Your task to perform on an android device: change notifications settings Image 0: 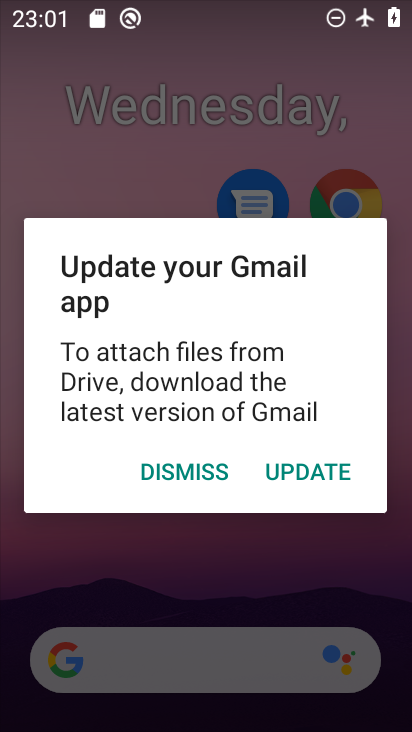
Step 0: click (151, 501)
Your task to perform on an android device: change notifications settings Image 1: 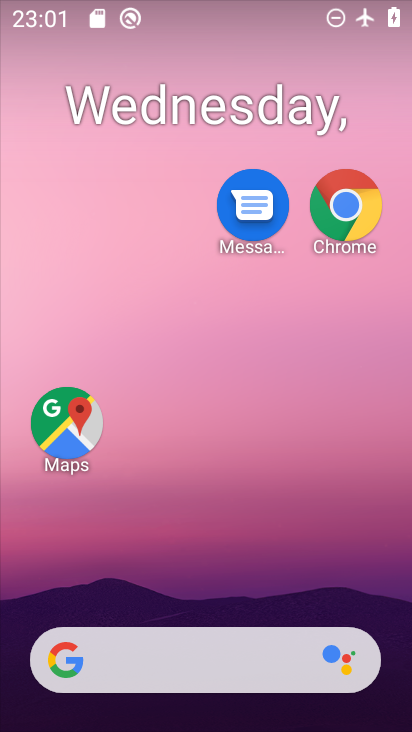
Step 1: drag from (250, 401) to (243, 82)
Your task to perform on an android device: change notifications settings Image 2: 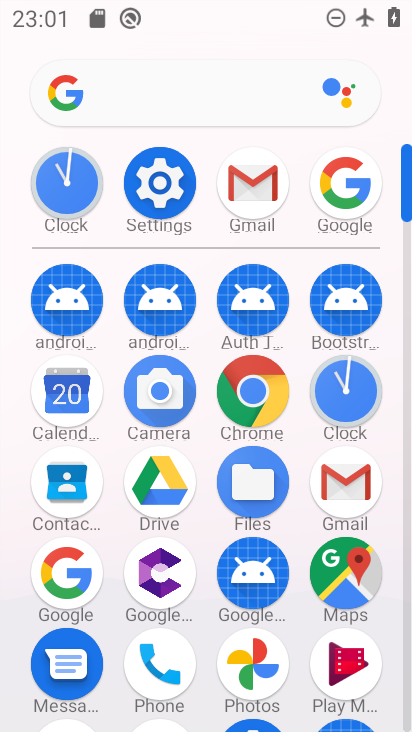
Step 2: click (167, 167)
Your task to perform on an android device: change notifications settings Image 3: 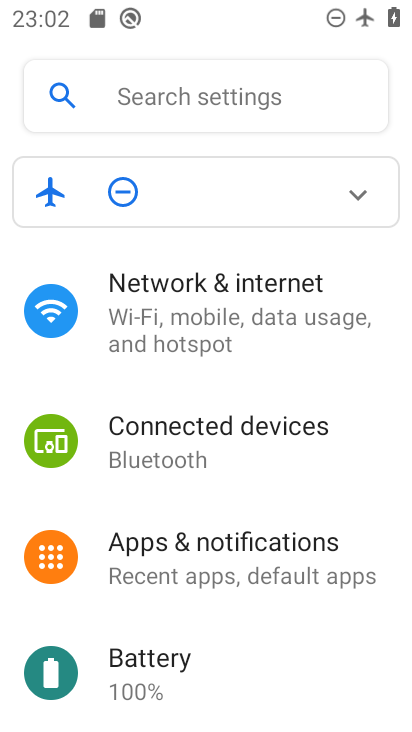
Step 3: drag from (207, 463) to (227, 127)
Your task to perform on an android device: change notifications settings Image 4: 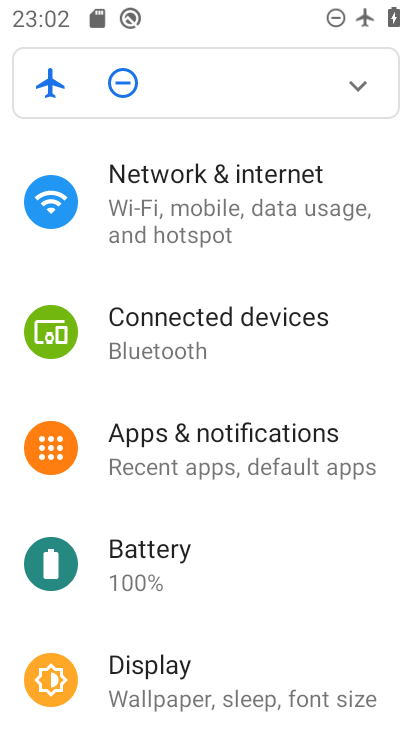
Step 4: click (190, 434)
Your task to perform on an android device: change notifications settings Image 5: 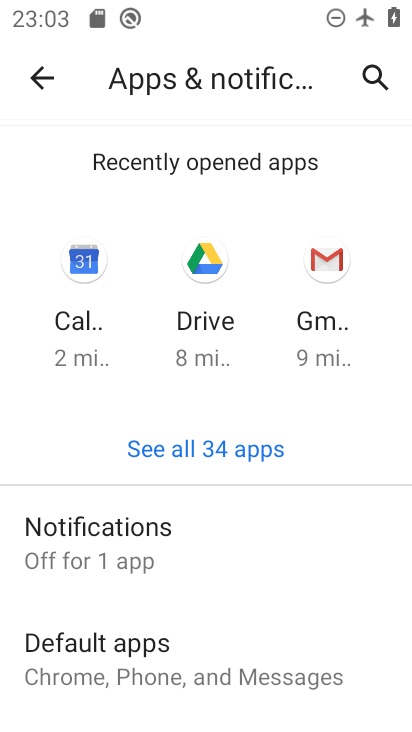
Step 5: drag from (224, 528) to (255, 172)
Your task to perform on an android device: change notifications settings Image 6: 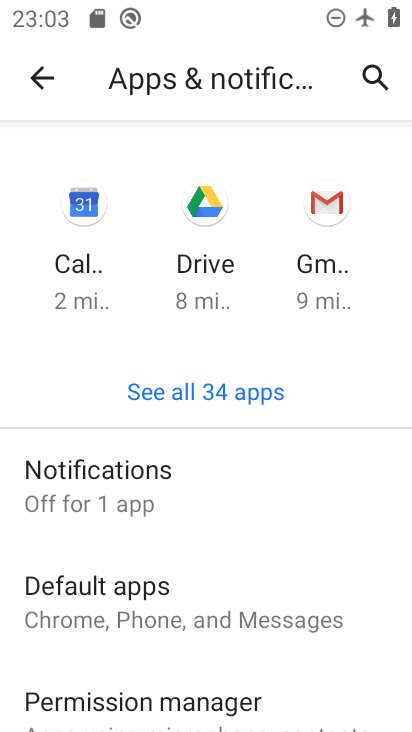
Step 6: drag from (200, 484) to (220, 58)
Your task to perform on an android device: change notifications settings Image 7: 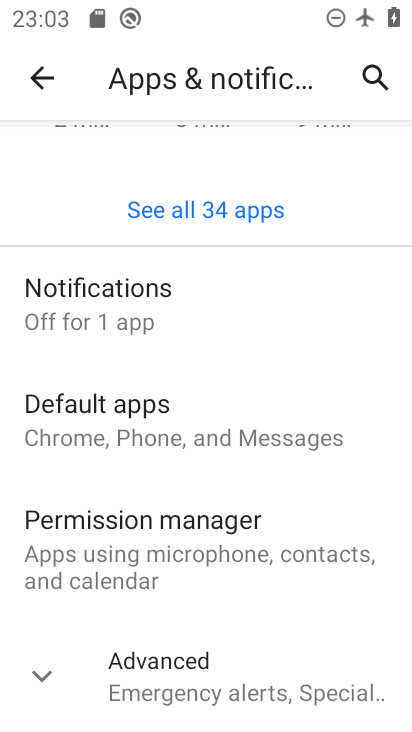
Step 7: drag from (176, 331) to (314, 726)
Your task to perform on an android device: change notifications settings Image 8: 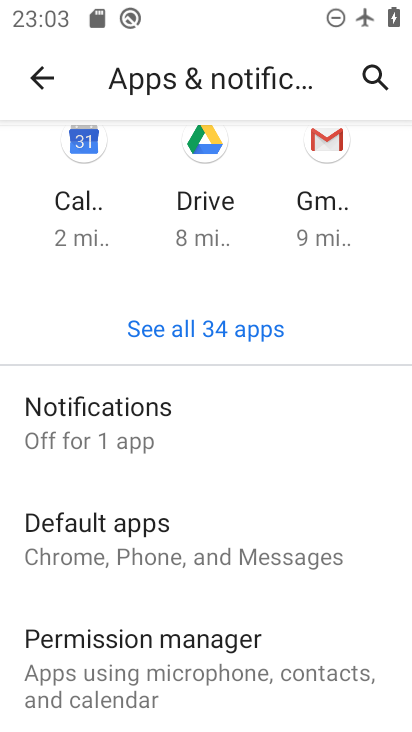
Step 8: drag from (122, 255) to (340, 622)
Your task to perform on an android device: change notifications settings Image 9: 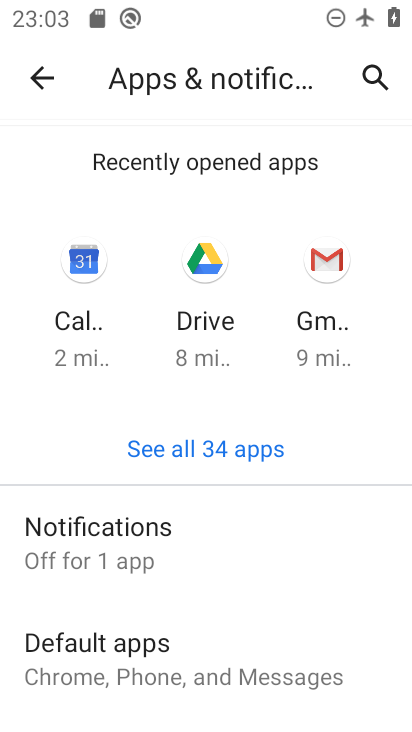
Step 9: click (196, 530)
Your task to perform on an android device: change notifications settings Image 10: 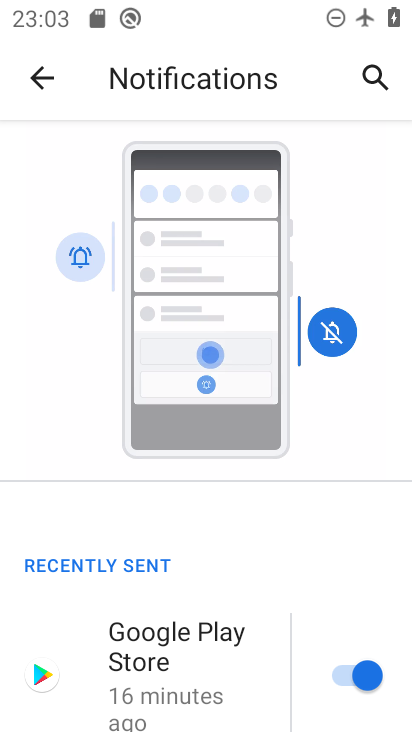
Step 10: drag from (209, 636) to (266, 172)
Your task to perform on an android device: change notifications settings Image 11: 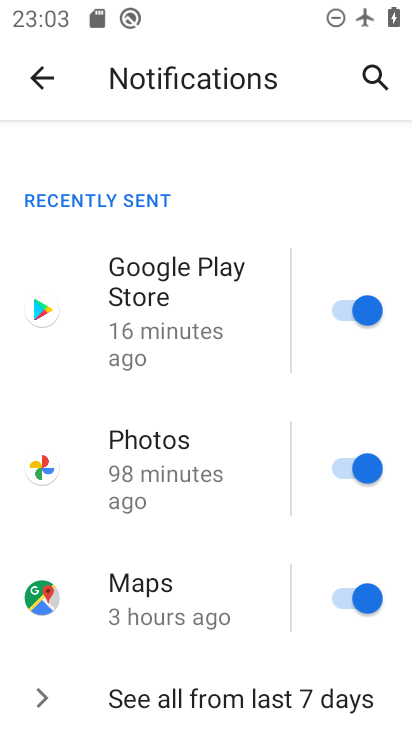
Step 11: drag from (232, 613) to (226, 88)
Your task to perform on an android device: change notifications settings Image 12: 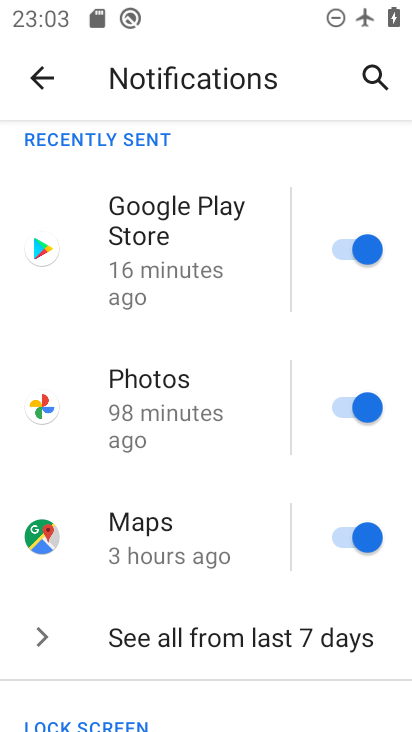
Step 12: drag from (232, 615) to (208, 65)
Your task to perform on an android device: change notifications settings Image 13: 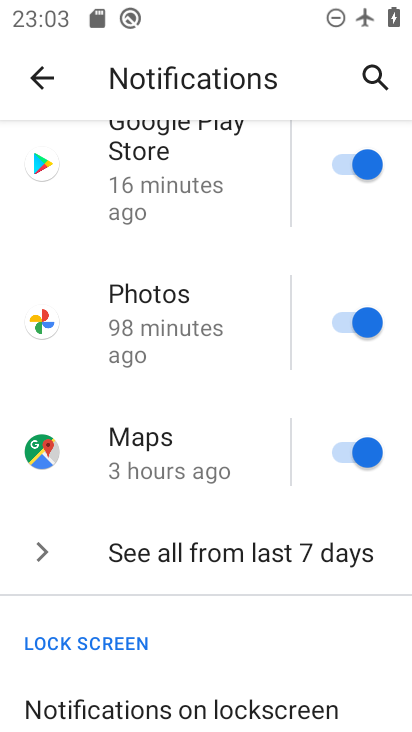
Step 13: drag from (223, 640) to (301, 169)
Your task to perform on an android device: change notifications settings Image 14: 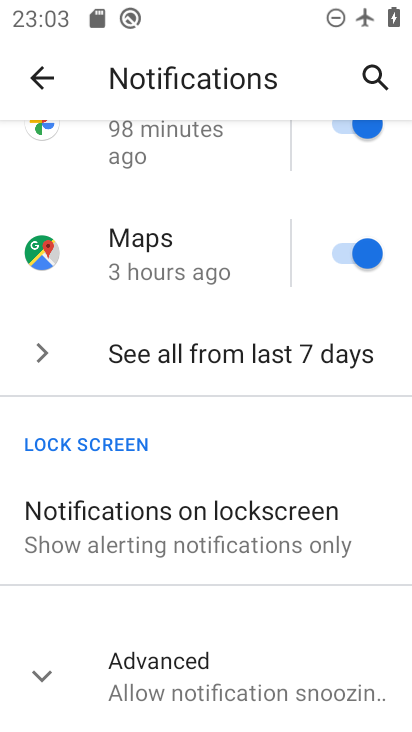
Step 14: drag from (260, 615) to (308, 211)
Your task to perform on an android device: change notifications settings Image 15: 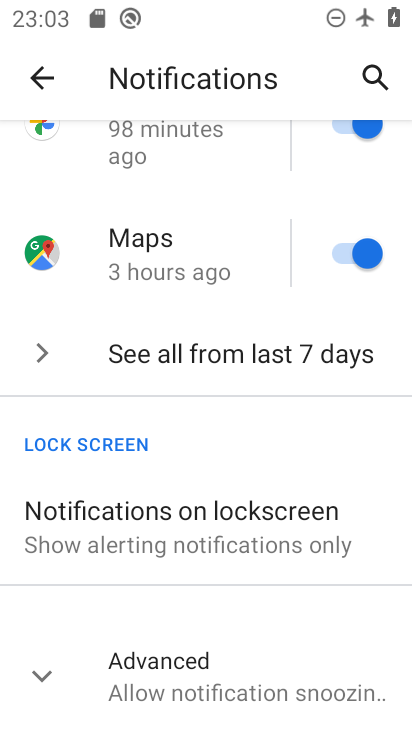
Step 15: drag from (205, 610) to (277, 264)
Your task to perform on an android device: change notifications settings Image 16: 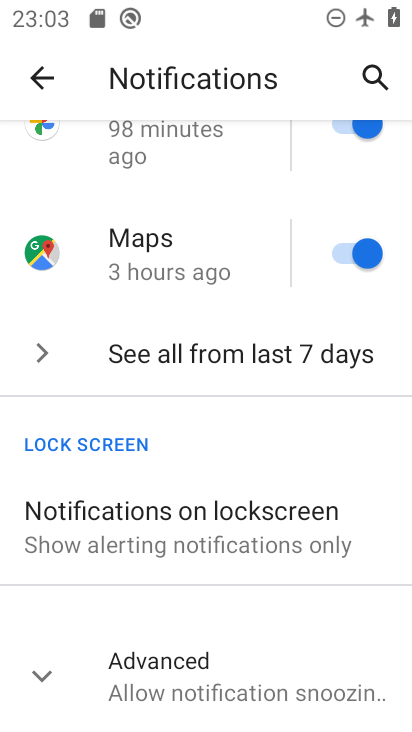
Step 16: click (221, 679)
Your task to perform on an android device: change notifications settings Image 17: 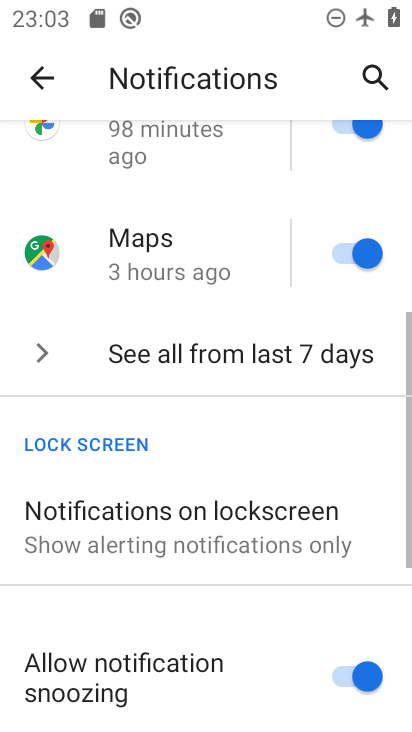
Step 17: drag from (218, 674) to (258, 236)
Your task to perform on an android device: change notifications settings Image 18: 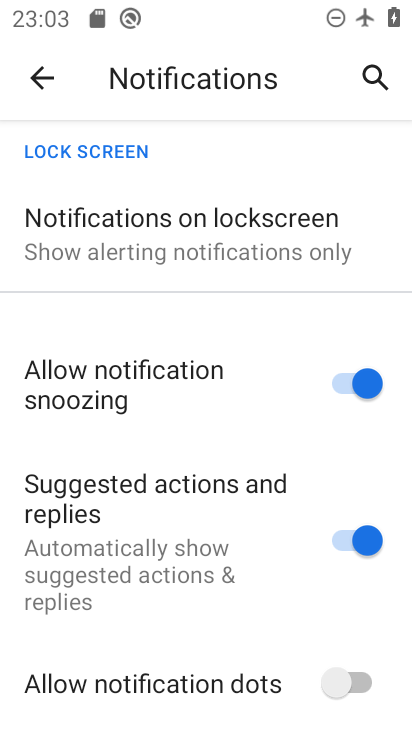
Step 18: drag from (215, 642) to (257, 292)
Your task to perform on an android device: change notifications settings Image 19: 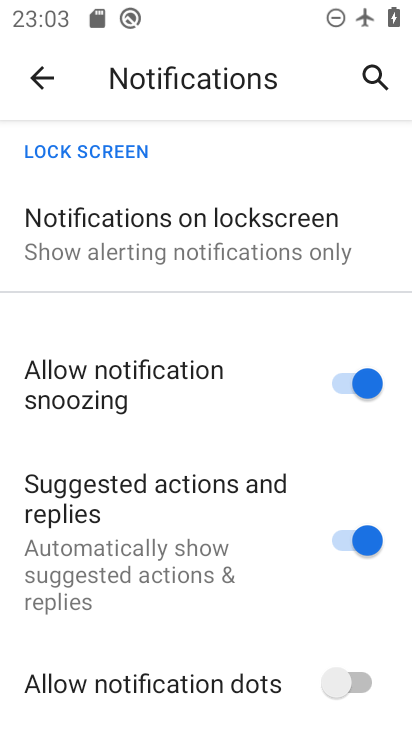
Step 19: drag from (214, 654) to (199, 129)
Your task to perform on an android device: change notifications settings Image 20: 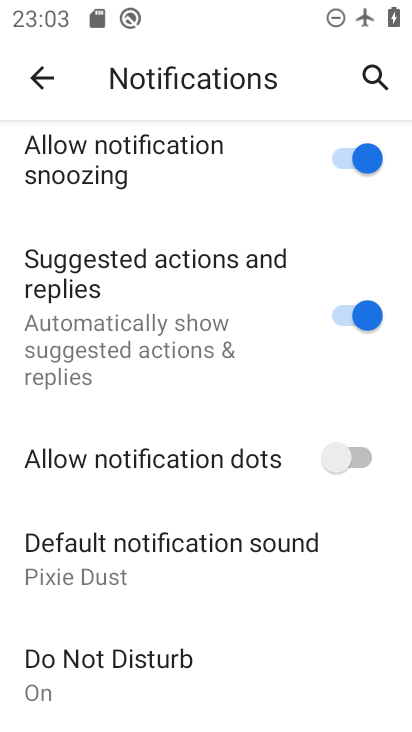
Step 20: click (310, 449)
Your task to perform on an android device: change notifications settings Image 21: 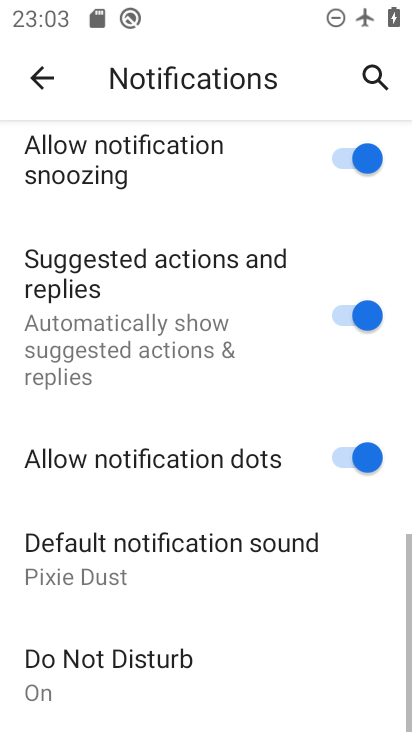
Step 21: task complete